Your task to perform on an android device: empty trash in the gmail app Image 0: 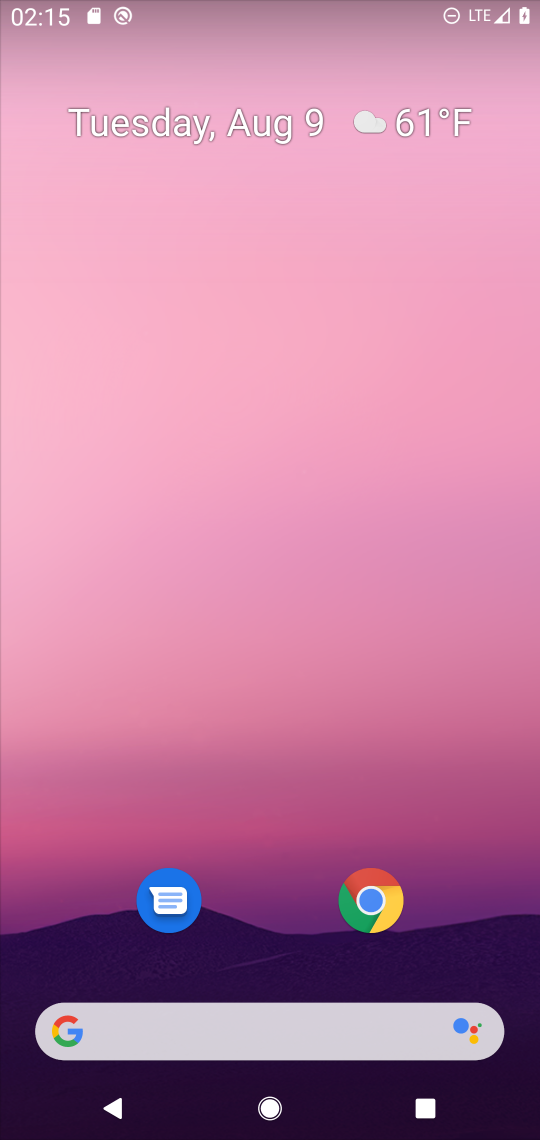
Step 0: press home button
Your task to perform on an android device: empty trash in the gmail app Image 1: 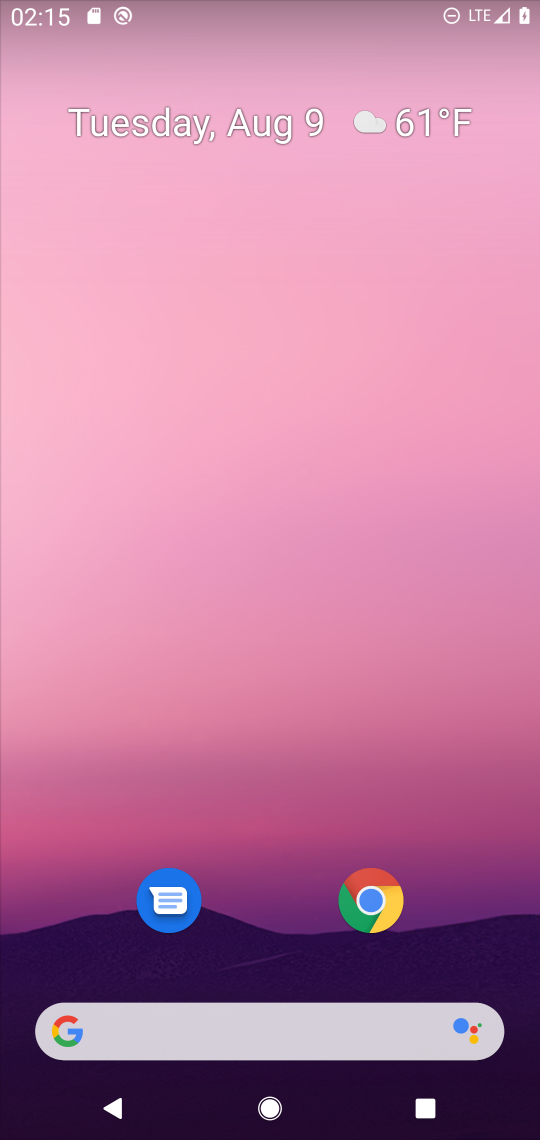
Step 1: drag from (283, 951) to (321, 221)
Your task to perform on an android device: empty trash in the gmail app Image 2: 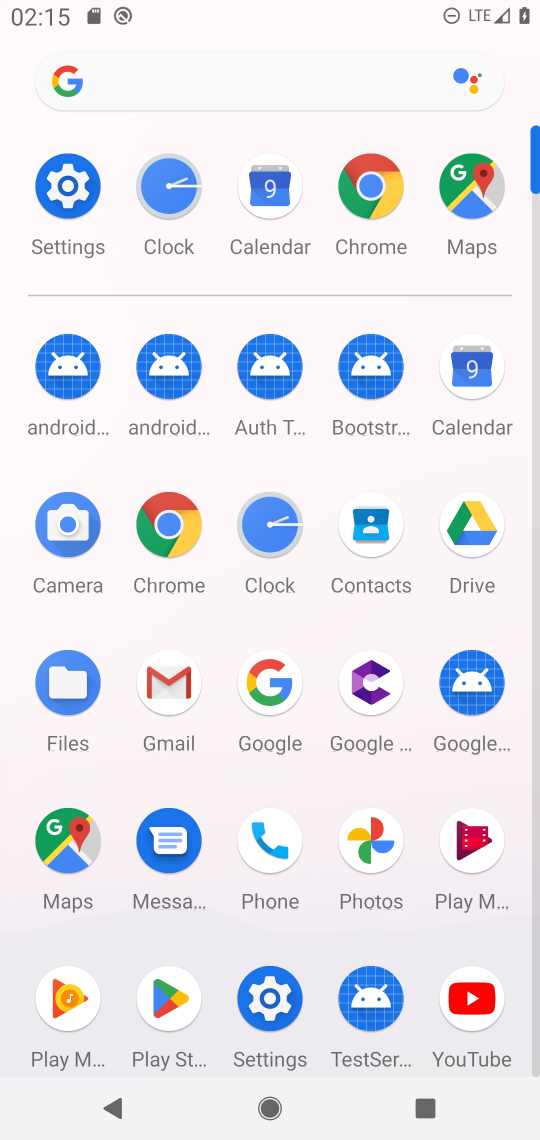
Step 2: click (172, 686)
Your task to perform on an android device: empty trash in the gmail app Image 3: 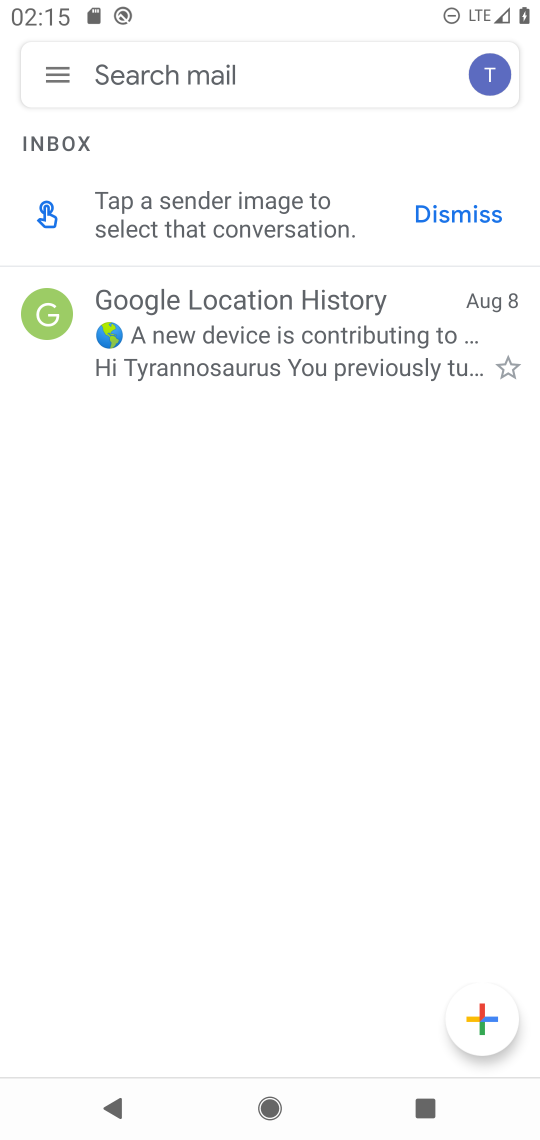
Step 3: click (57, 75)
Your task to perform on an android device: empty trash in the gmail app Image 4: 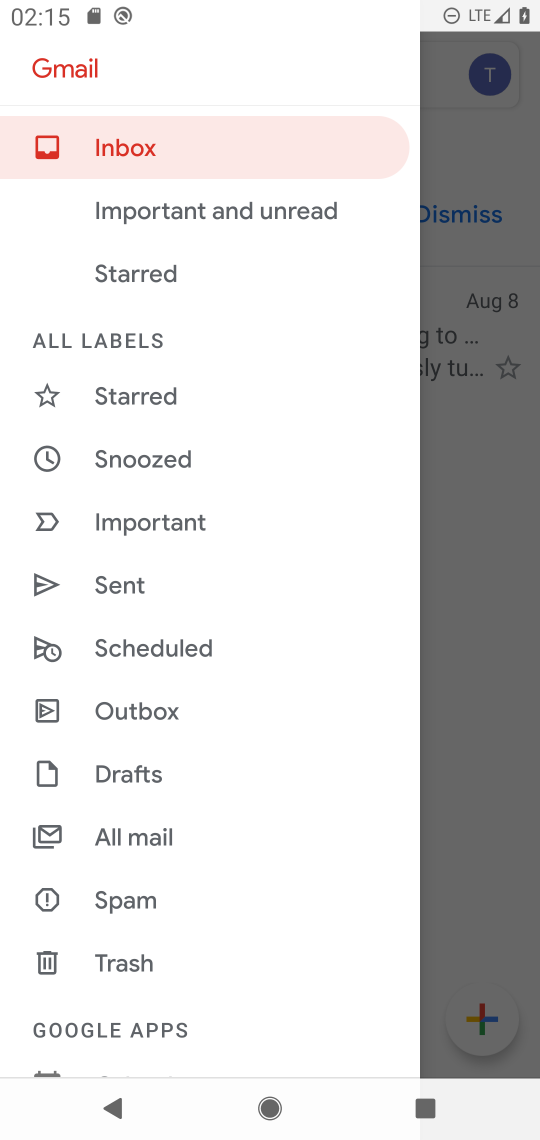
Step 4: drag from (280, 802) to (297, 619)
Your task to perform on an android device: empty trash in the gmail app Image 5: 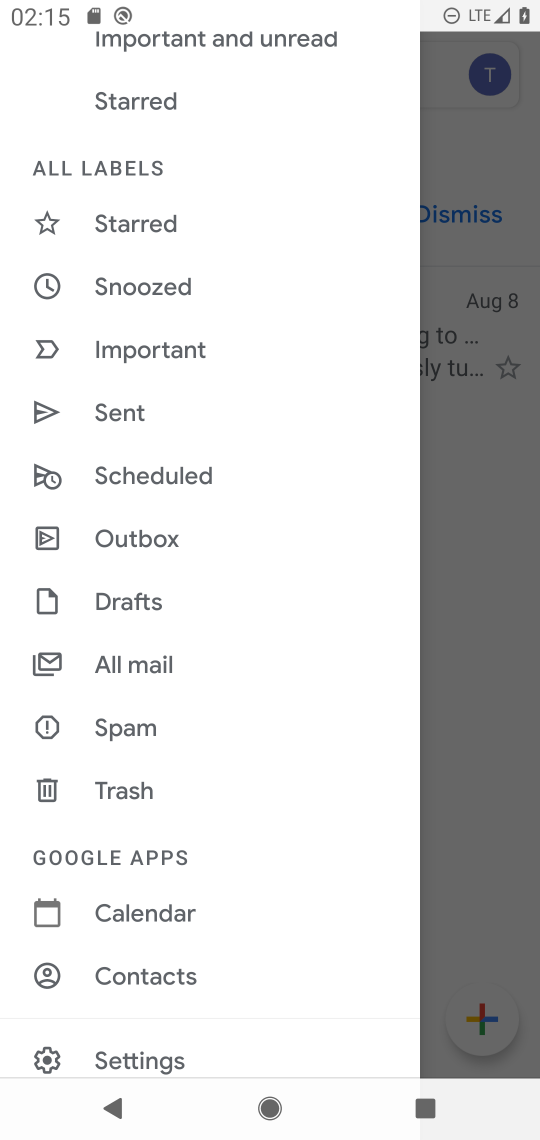
Step 5: drag from (297, 889) to (299, 639)
Your task to perform on an android device: empty trash in the gmail app Image 6: 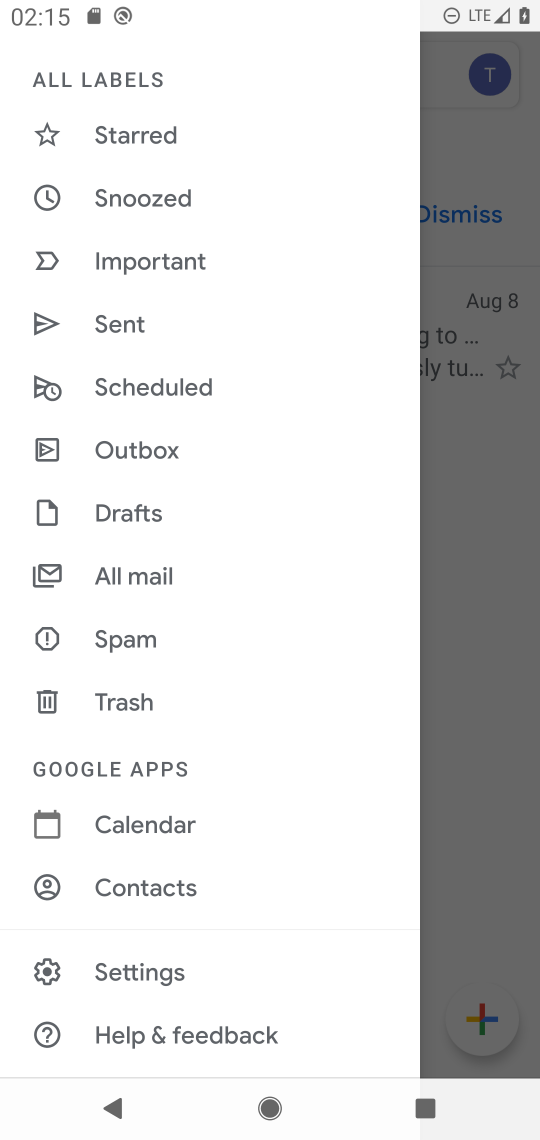
Step 6: click (157, 687)
Your task to perform on an android device: empty trash in the gmail app Image 7: 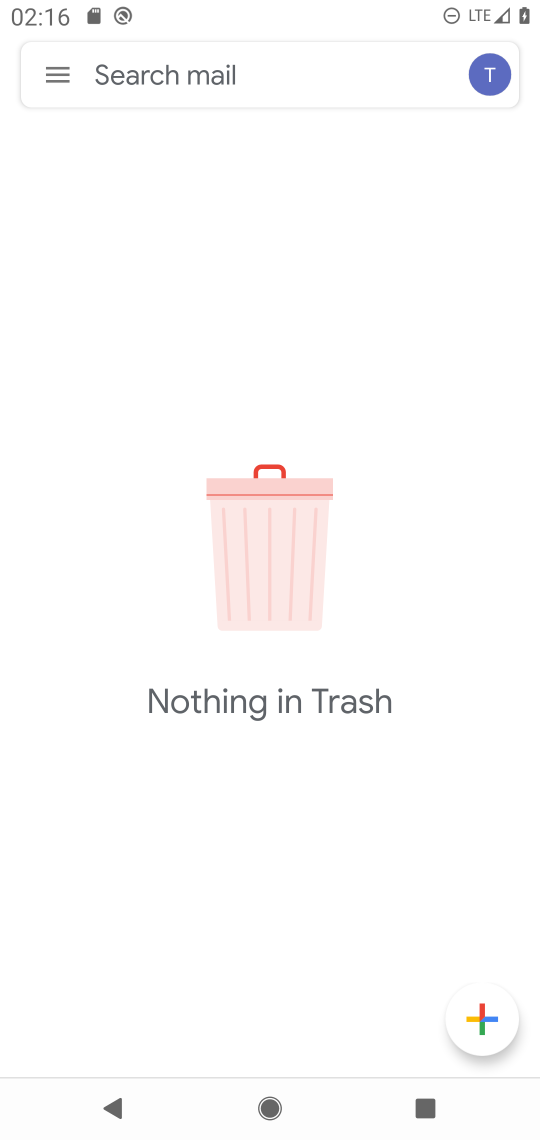
Step 7: task complete